Your task to perform on an android device: turn on wifi Image 0: 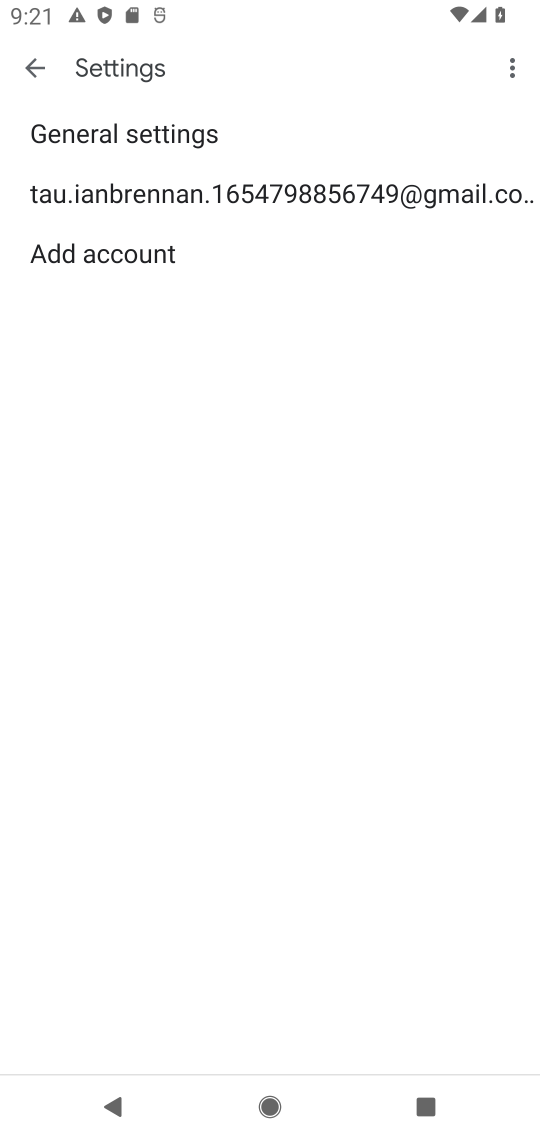
Step 0: press home button
Your task to perform on an android device: turn on wifi Image 1: 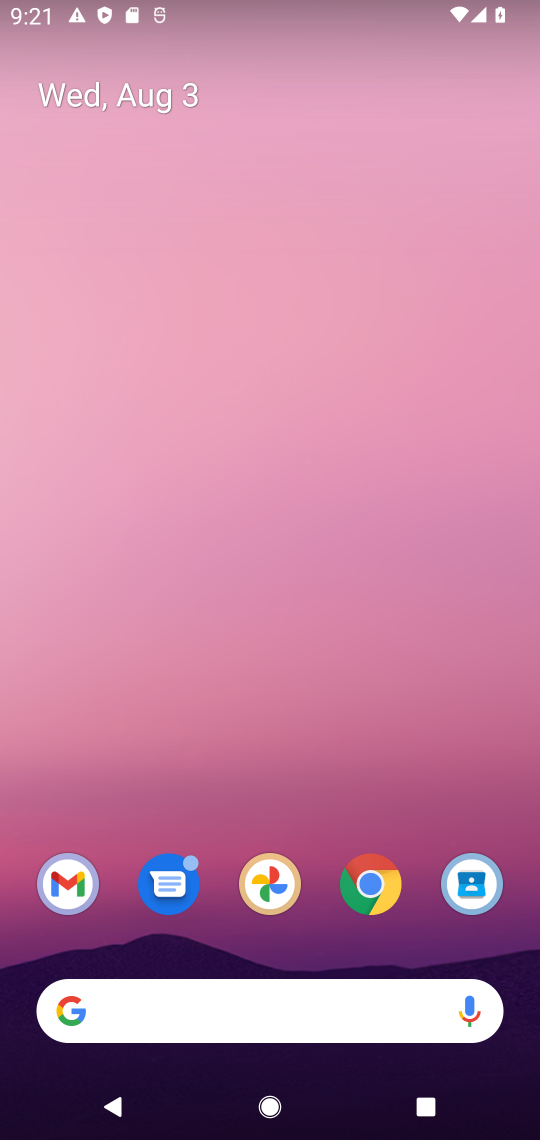
Step 1: drag from (264, 788) to (259, 61)
Your task to perform on an android device: turn on wifi Image 2: 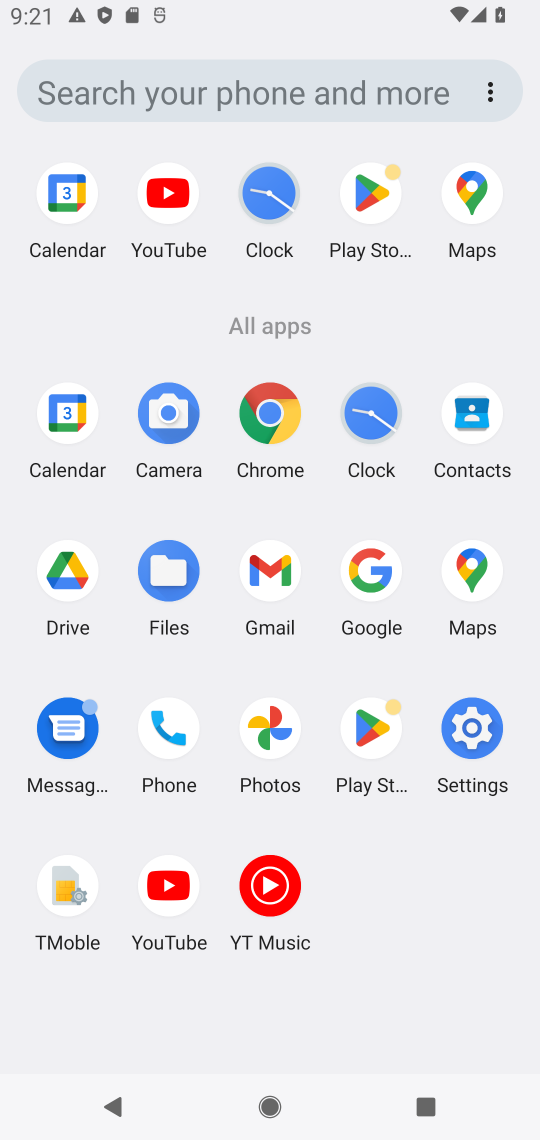
Step 2: drag from (190, 3) to (171, 760)
Your task to perform on an android device: turn on wifi Image 3: 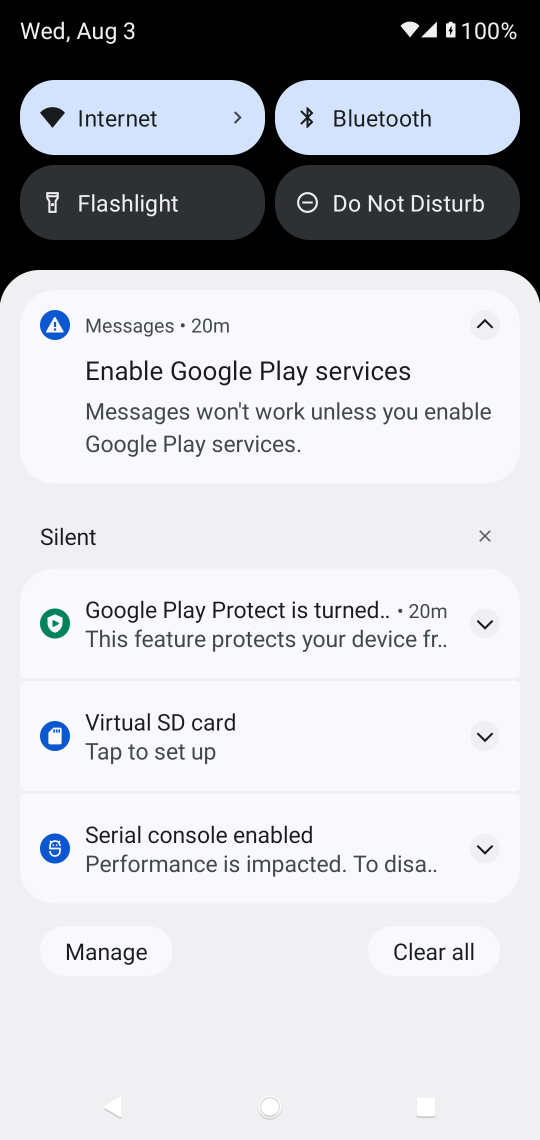
Step 3: click (539, 267)
Your task to perform on an android device: turn on wifi Image 4: 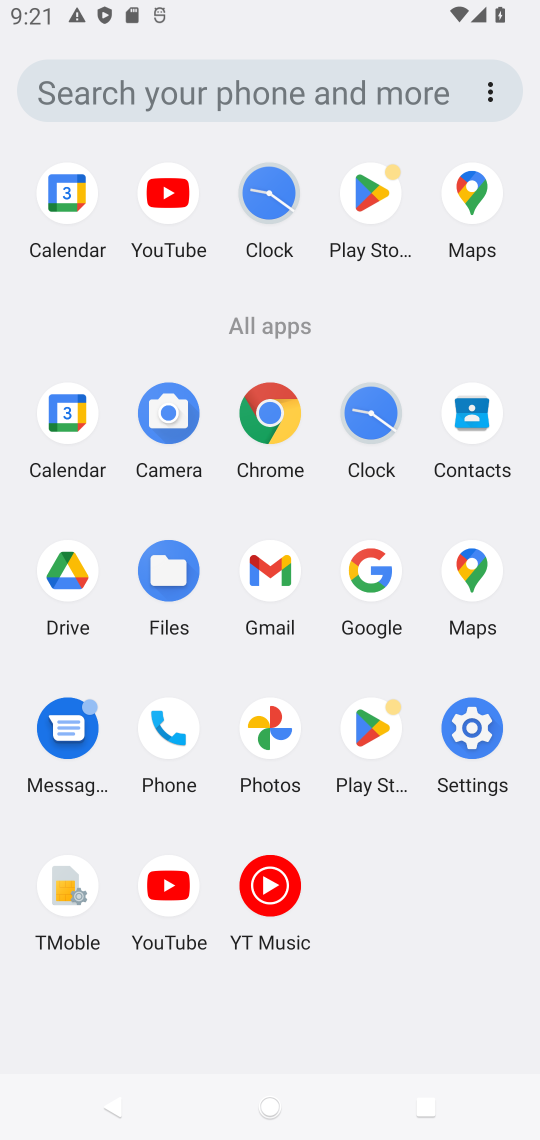
Step 4: click (523, 261)
Your task to perform on an android device: turn on wifi Image 5: 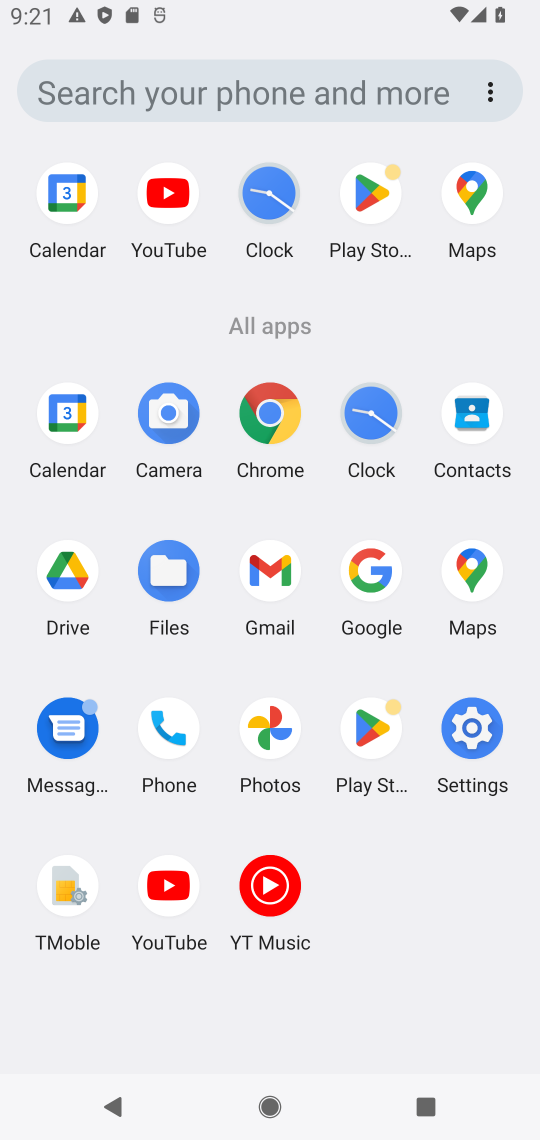
Step 5: drag from (108, 4) to (90, 560)
Your task to perform on an android device: turn on wifi Image 6: 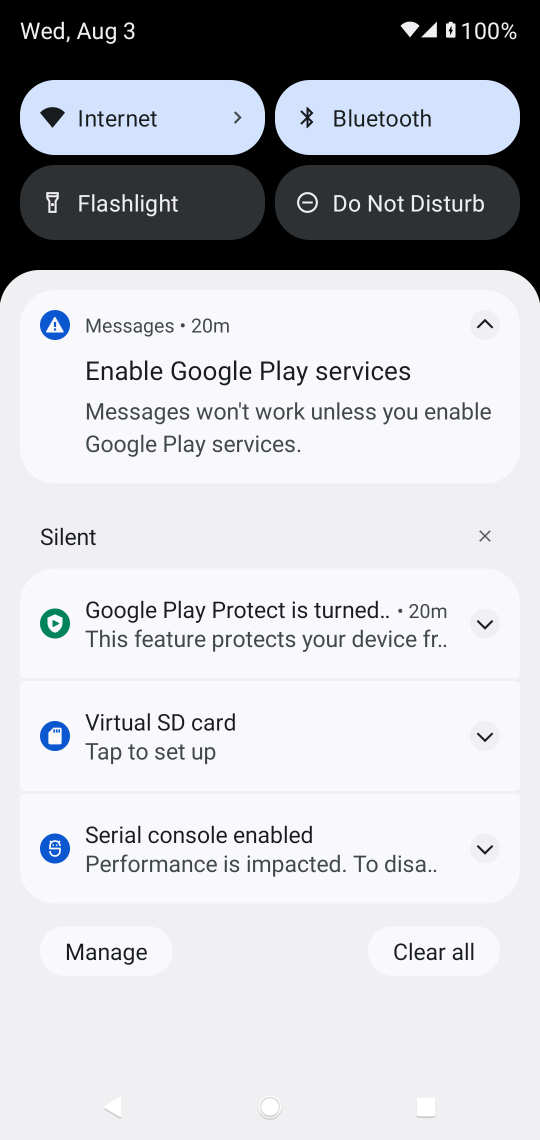
Step 6: drag from (332, 1111) to (372, 259)
Your task to perform on an android device: turn on wifi Image 7: 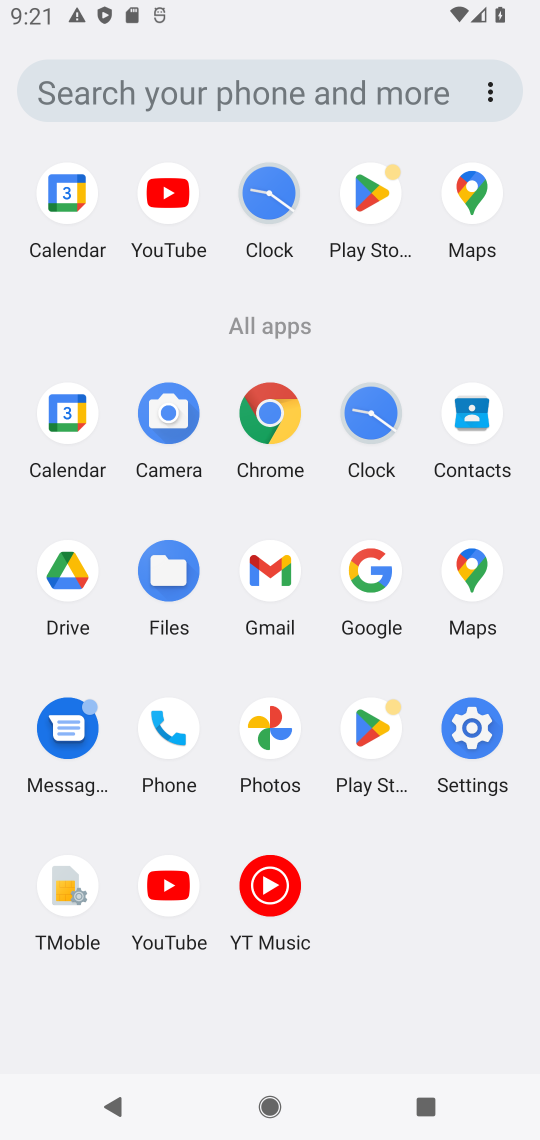
Step 7: drag from (425, 1) to (453, 859)
Your task to perform on an android device: turn on wifi Image 8: 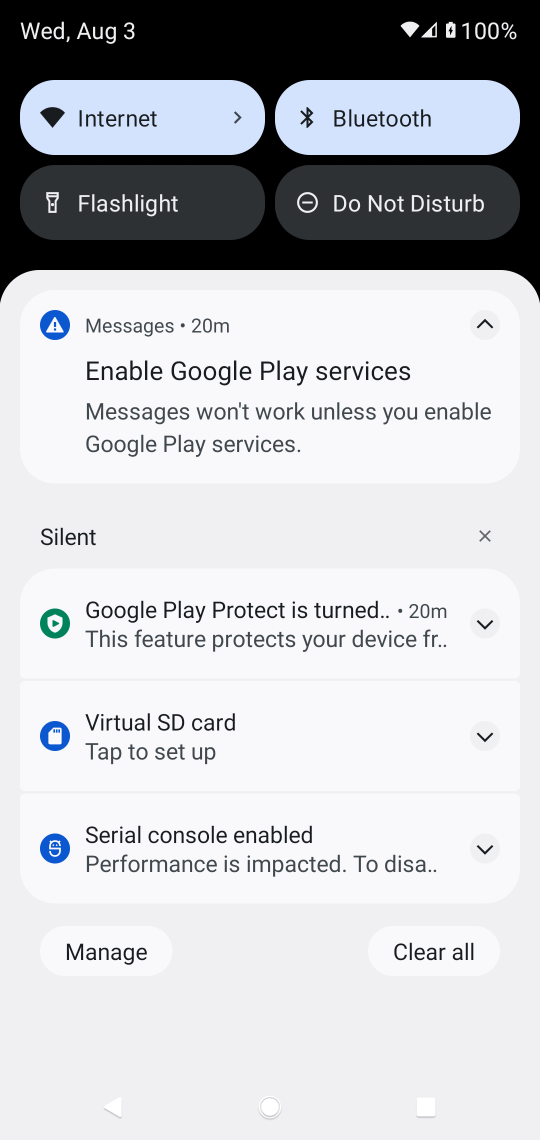
Step 8: drag from (385, 935) to (404, 114)
Your task to perform on an android device: turn on wifi Image 9: 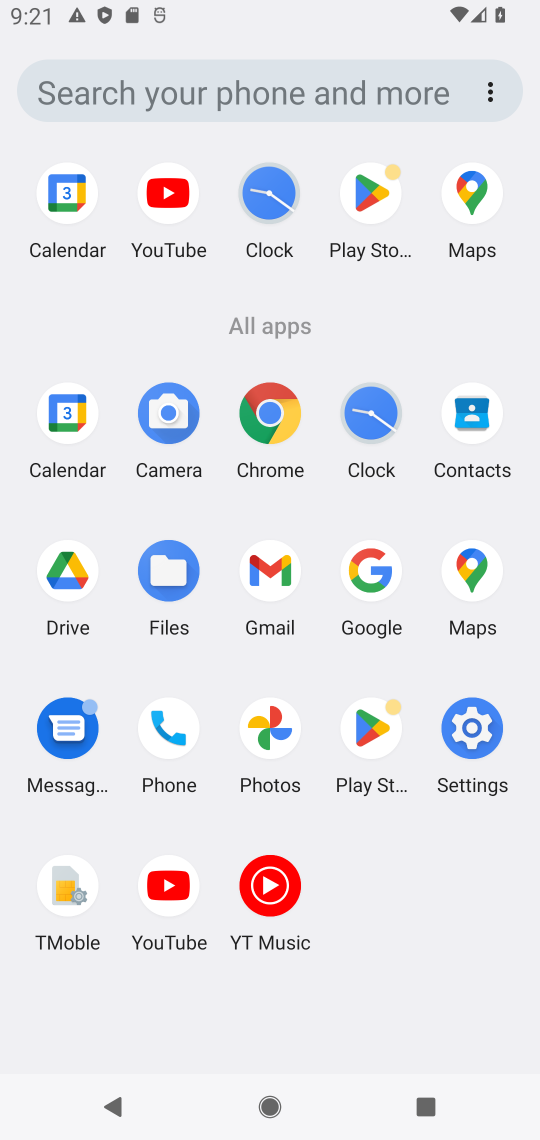
Step 9: drag from (264, 358) to (276, 35)
Your task to perform on an android device: turn on wifi Image 10: 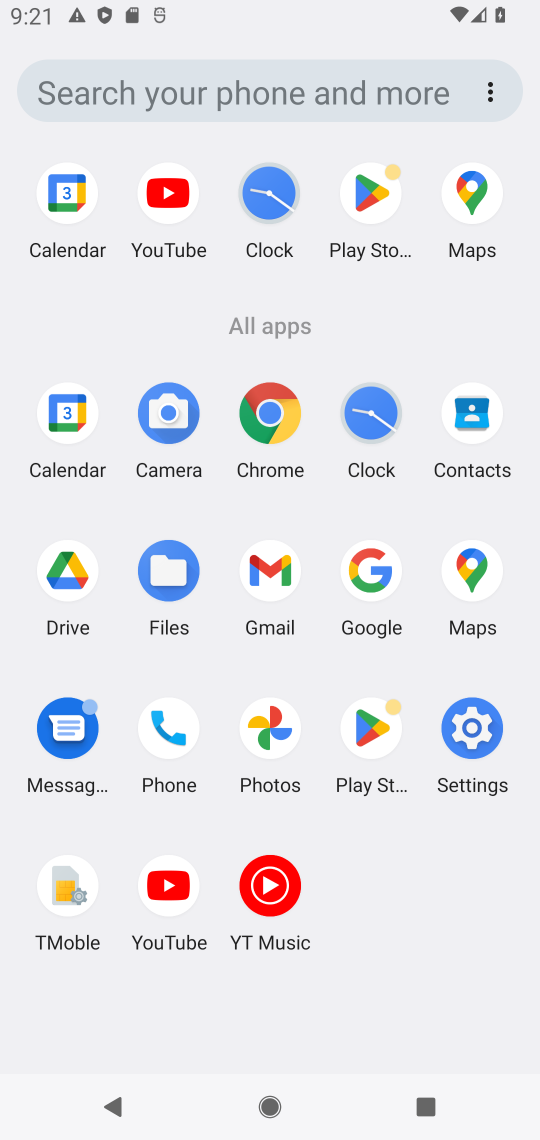
Step 10: drag from (265, 28) to (288, 1037)
Your task to perform on an android device: turn on wifi Image 11: 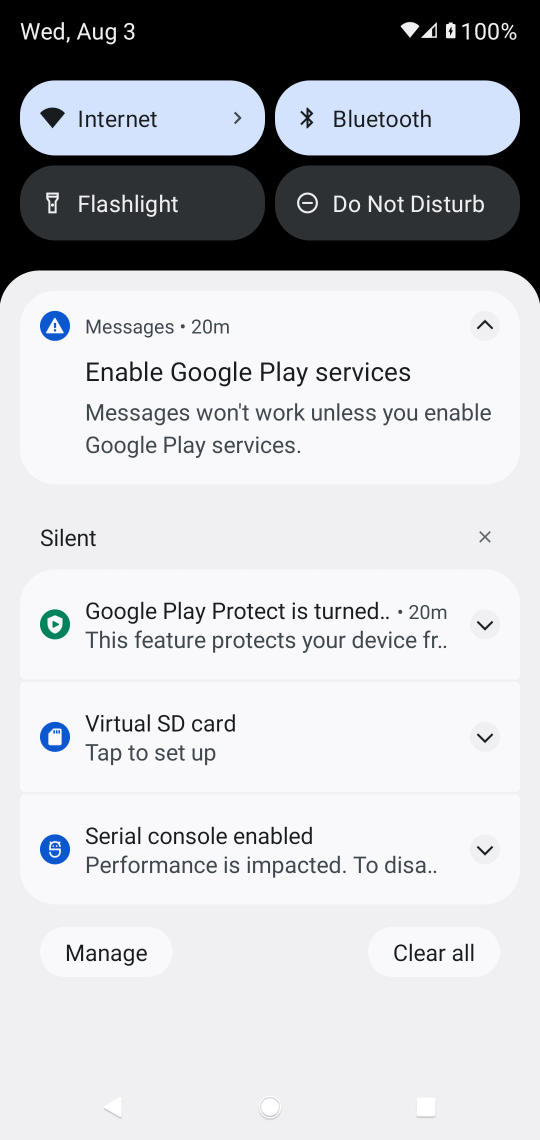
Step 11: drag from (283, 238) to (241, 788)
Your task to perform on an android device: turn on wifi Image 12: 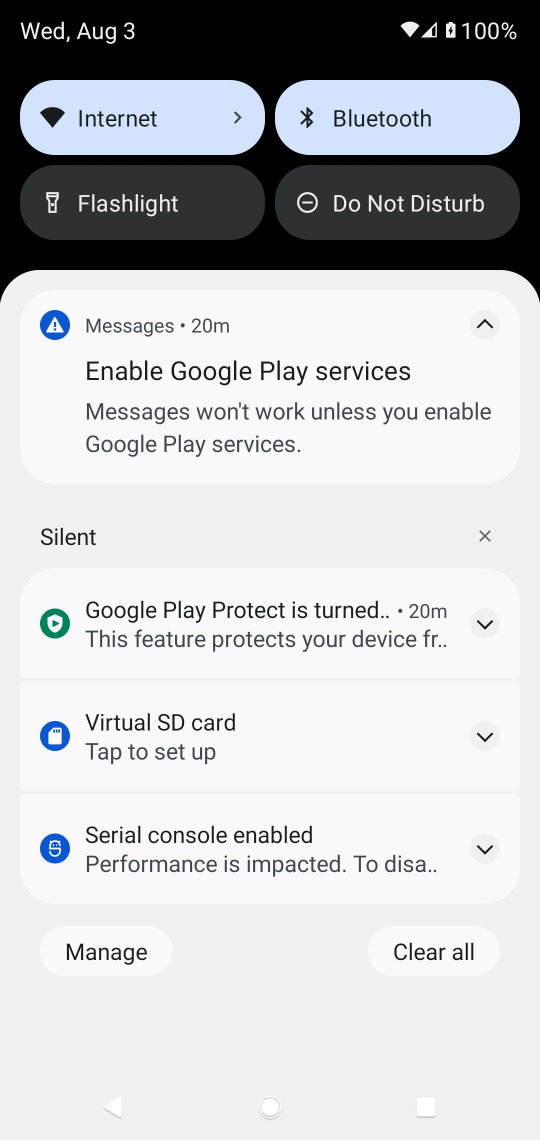
Step 12: click (90, 94)
Your task to perform on an android device: turn on wifi Image 13: 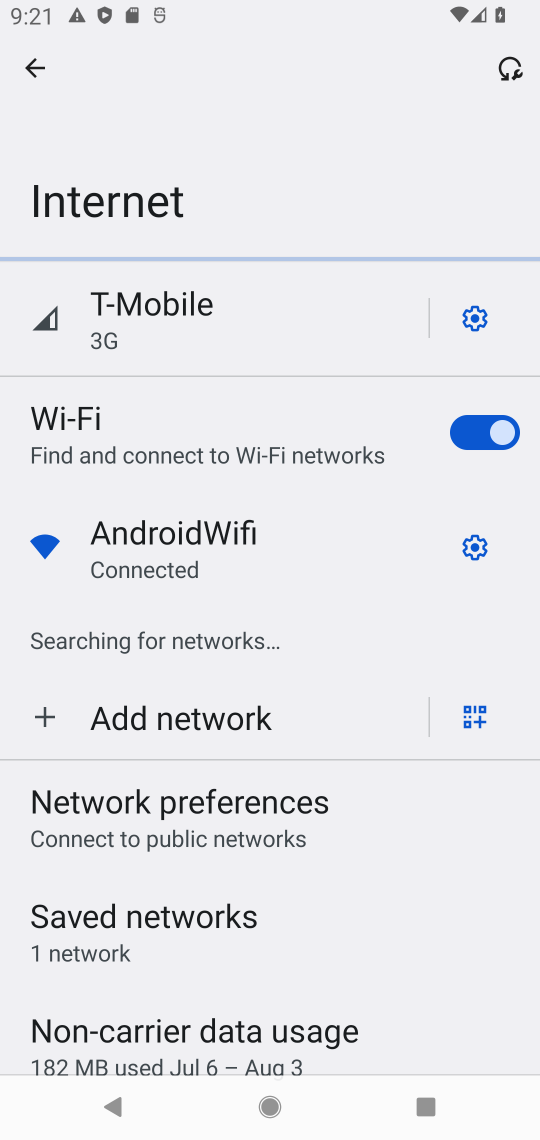
Step 13: task complete